Your task to perform on an android device: turn pop-ups off in chrome Image 0: 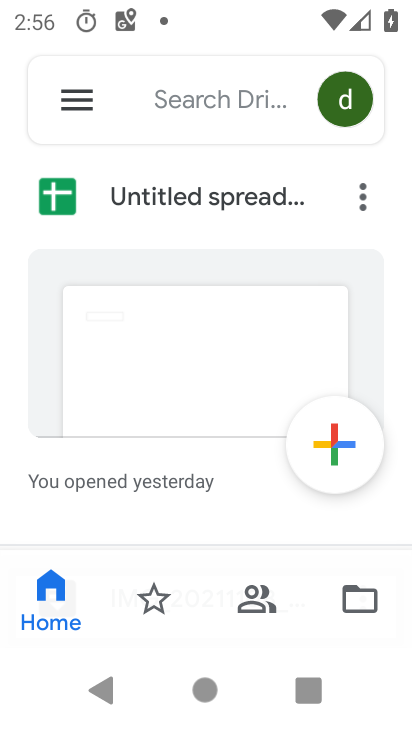
Step 0: press home button
Your task to perform on an android device: turn pop-ups off in chrome Image 1: 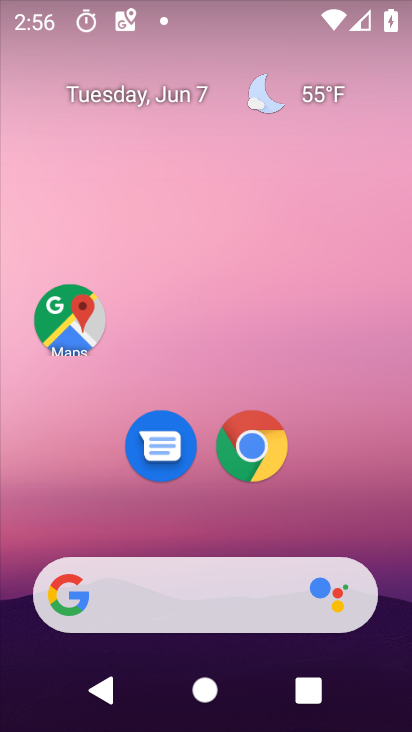
Step 1: click (263, 442)
Your task to perform on an android device: turn pop-ups off in chrome Image 2: 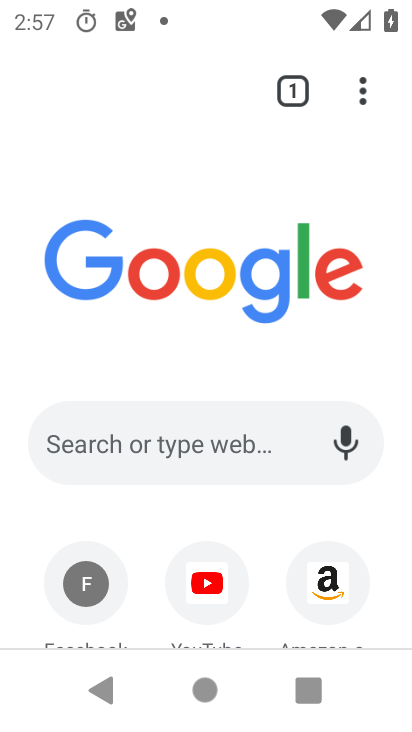
Step 2: click (386, 97)
Your task to perform on an android device: turn pop-ups off in chrome Image 3: 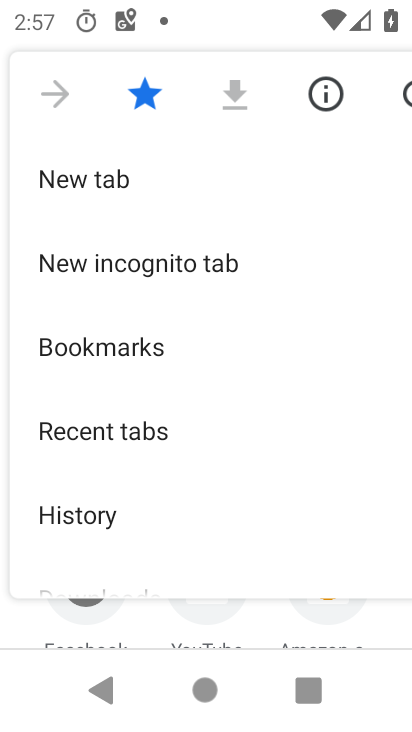
Step 3: drag from (134, 518) to (188, 131)
Your task to perform on an android device: turn pop-ups off in chrome Image 4: 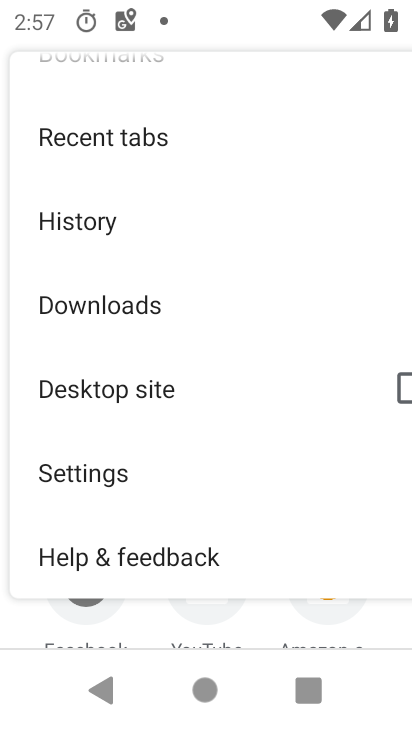
Step 4: click (121, 488)
Your task to perform on an android device: turn pop-ups off in chrome Image 5: 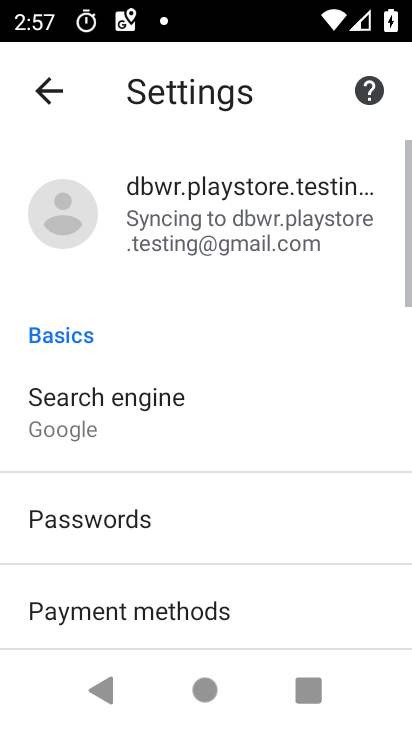
Step 5: drag from (189, 567) to (214, 139)
Your task to perform on an android device: turn pop-ups off in chrome Image 6: 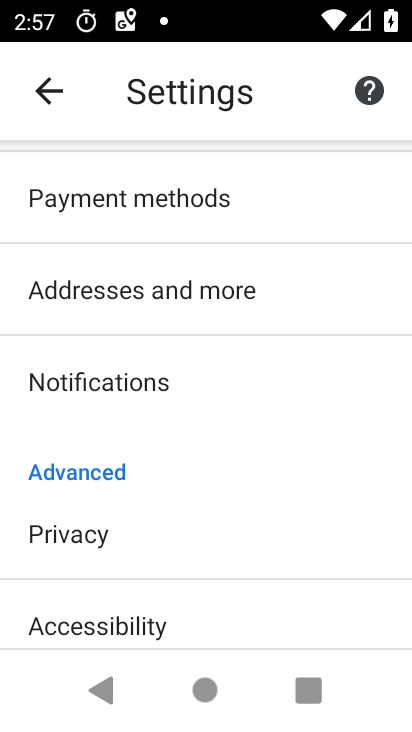
Step 6: drag from (132, 601) to (187, 290)
Your task to perform on an android device: turn pop-ups off in chrome Image 7: 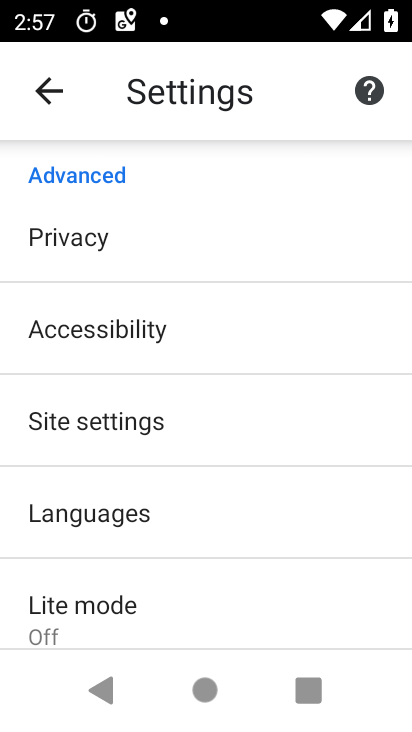
Step 7: drag from (169, 551) to (193, 396)
Your task to perform on an android device: turn pop-ups off in chrome Image 8: 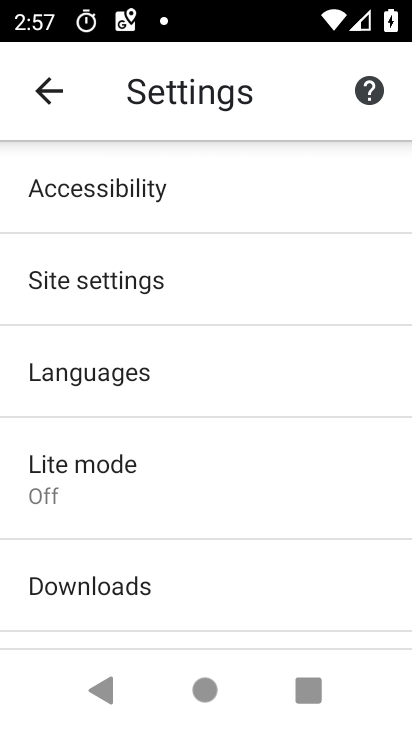
Step 8: click (106, 281)
Your task to perform on an android device: turn pop-ups off in chrome Image 9: 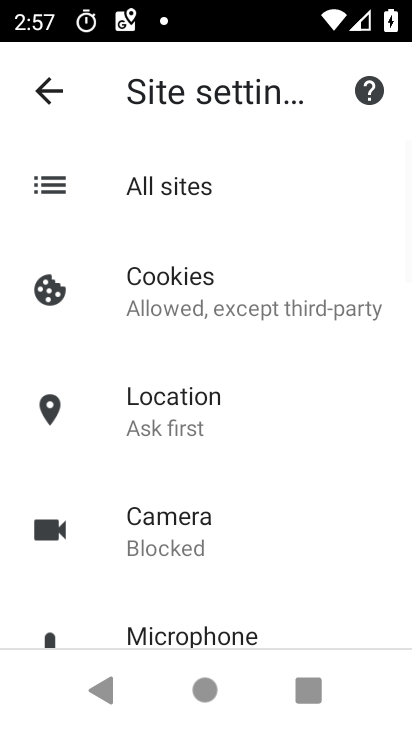
Step 9: drag from (189, 587) to (225, 342)
Your task to perform on an android device: turn pop-ups off in chrome Image 10: 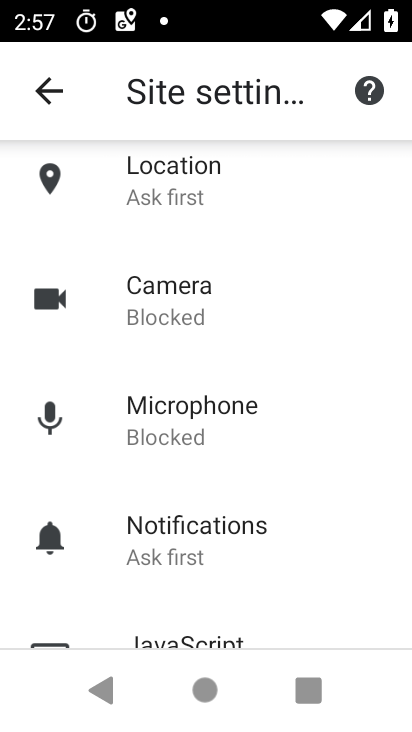
Step 10: drag from (187, 535) to (202, 352)
Your task to perform on an android device: turn pop-ups off in chrome Image 11: 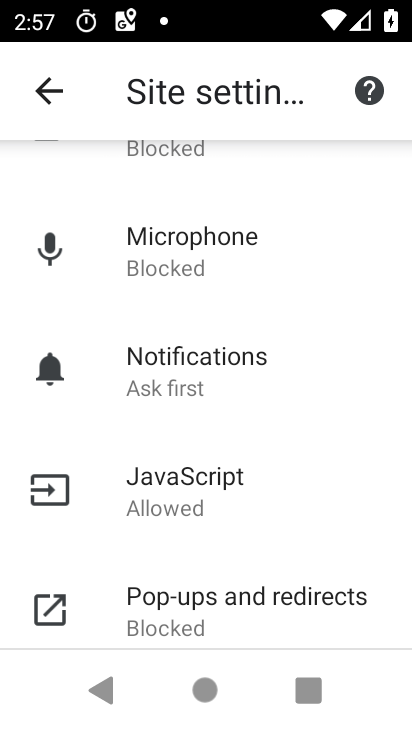
Step 11: click (191, 613)
Your task to perform on an android device: turn pop-ups off in chrome Image 12: 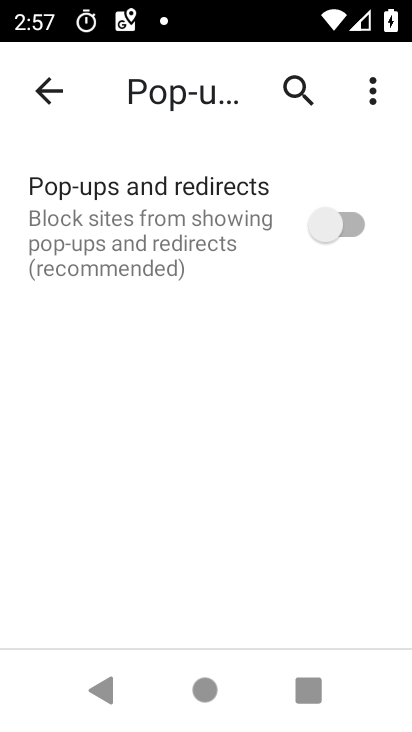
Step 12: click (384, 223)
Your task to perform on an android device: turn pop-ups off in chrome Image 13: 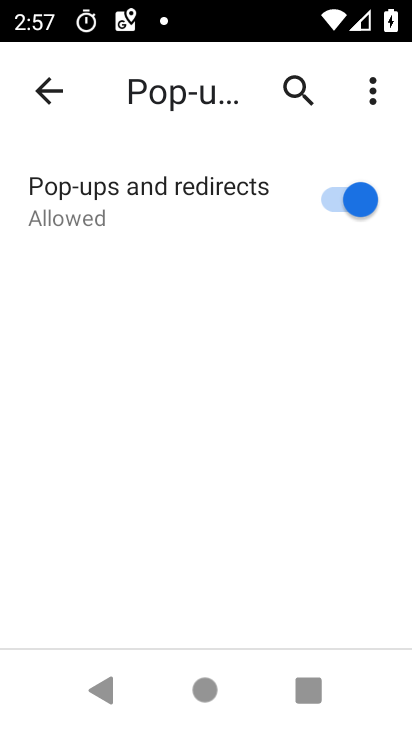
Step 13: task complete